Your task to perform on an android device: turn on sleep mode Image 0: 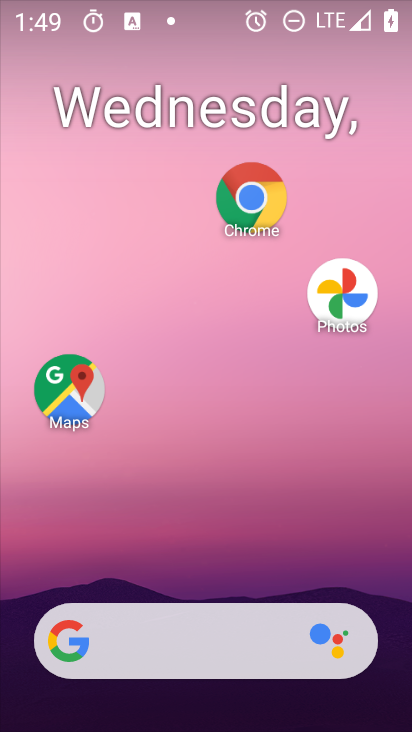
Step 0: drag from (171, 651) to (176, 173)
Your task to perform on an android device: turn on sleep mode Image 1: 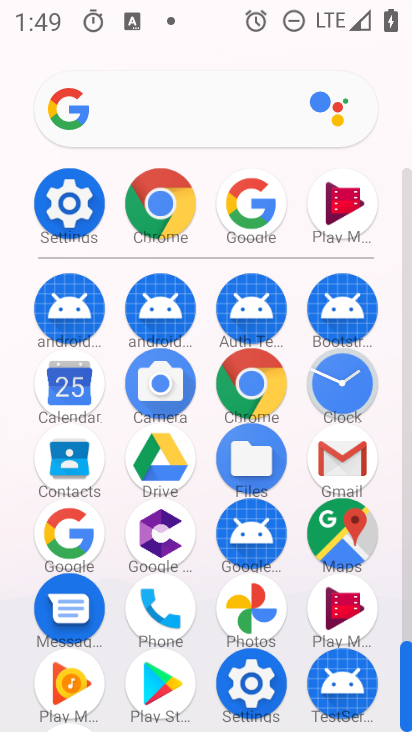
Step 1: click (90, 200)
Your task to perform on an android device: turn on sleep mode Image 2: 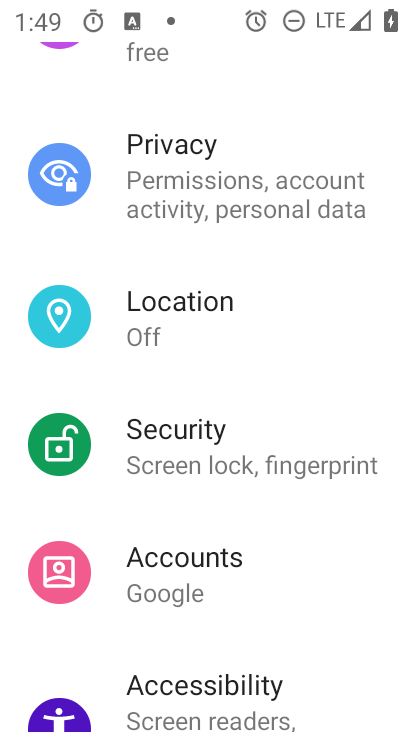
Step 2: drag from (167, 254) to (219, 631)
Your task to perform on an android device: turn on sleep mode Image 3: 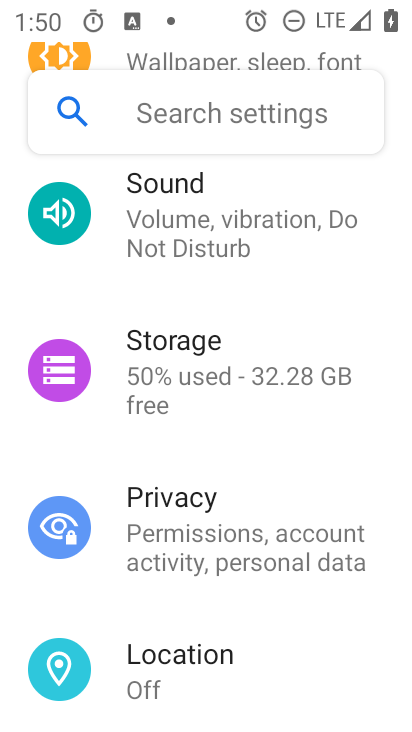
Step 3: drag from (200, 289) to (200, 636)
Your task to perform on an android device: turn on sleep mode Image 4: 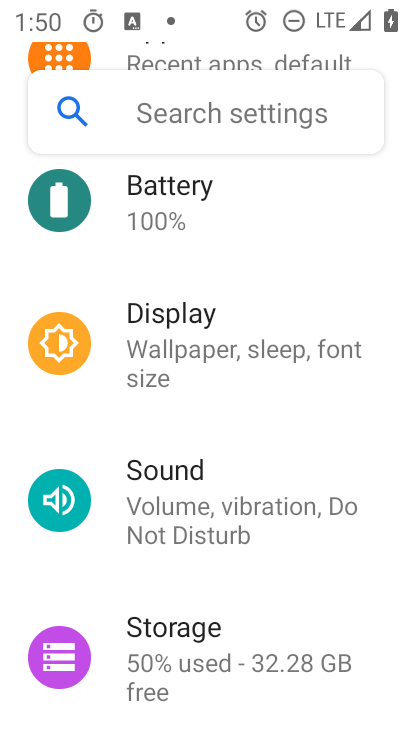
Step 4: click (183, 358)
Your task to perform on an android device: turn on sleep mode Image 5: 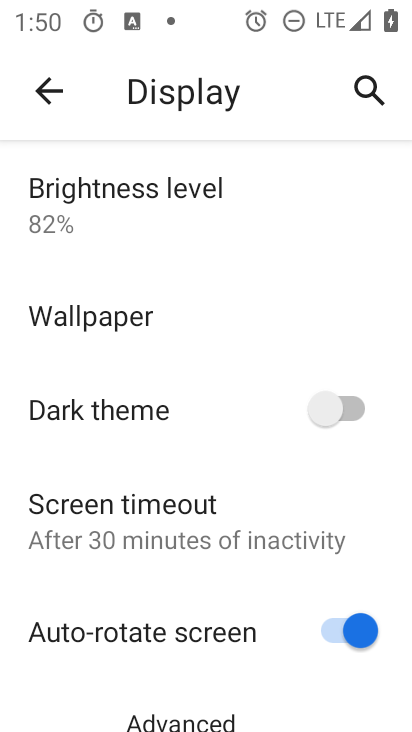
Step 5: drag from (162, 609) to (146, 306)
Your task to perform on an android device: turn on sleep mode Image 6: 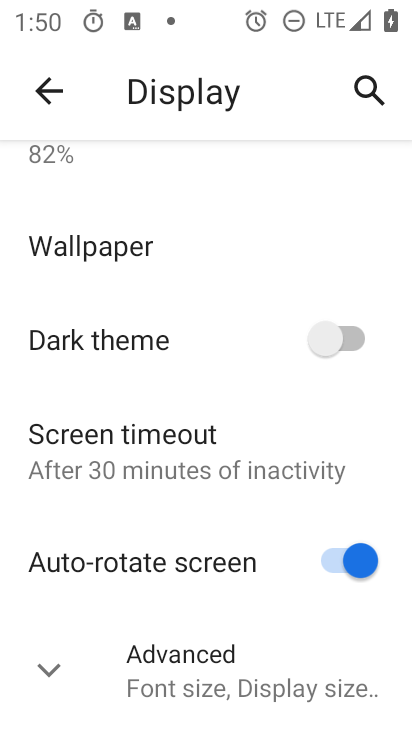
Step 6: click (128, 666)
Your task to perform on an android device: turn on sleep mode Image 7: 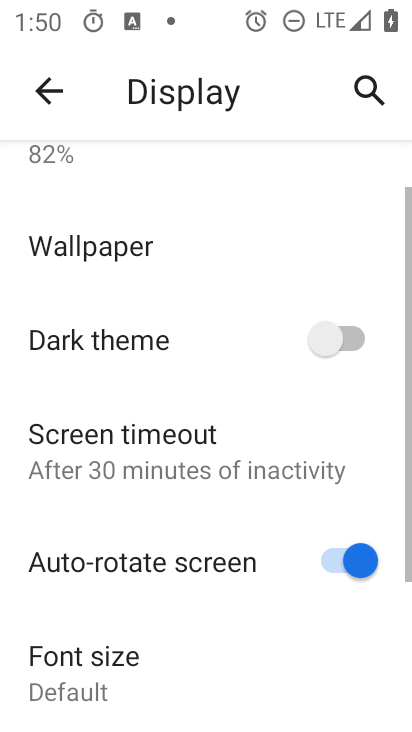
Step 7: task complete